Your task to perform on an android device: Open settings Image 0: 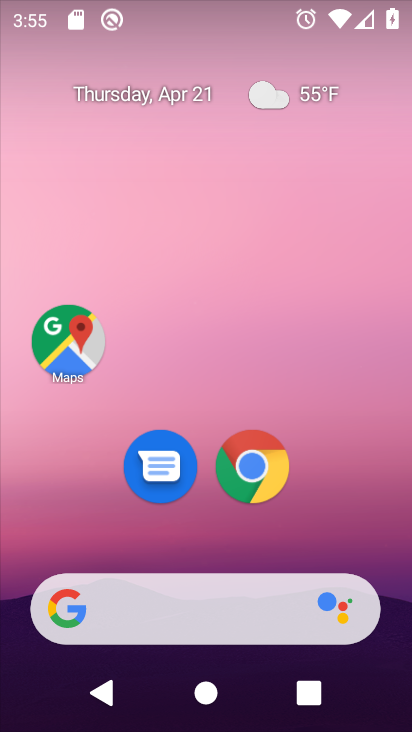
Step 0: drag from (213, 553) to (270, 71)
Your task to perform on an android device: Open settings Image 1: 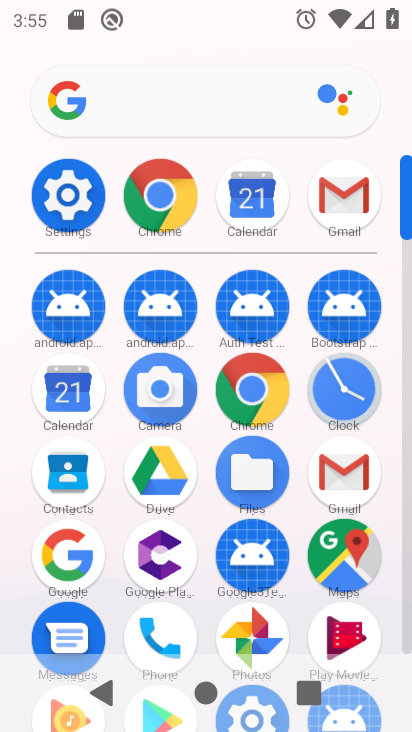
Step 1: click (86, 188)
Your task to perform on an android device: Open settings Image 2: 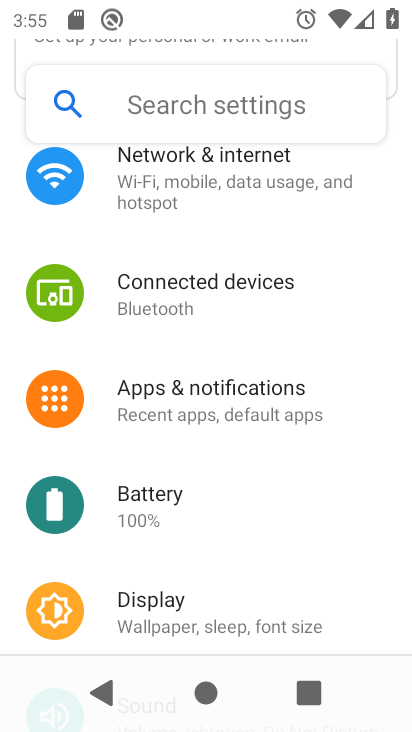
Step 2: task complete